Your task to perform on an android device: Open calendar and show me the third week of next month Image 0: 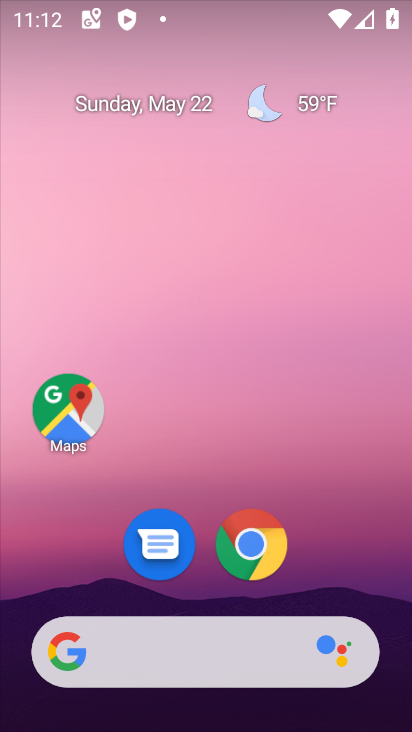
Step 0: drag from (394, 538) to (329, 124)
Your task to perform on an android device: Open calendar and show me the third week of next month Image 1: 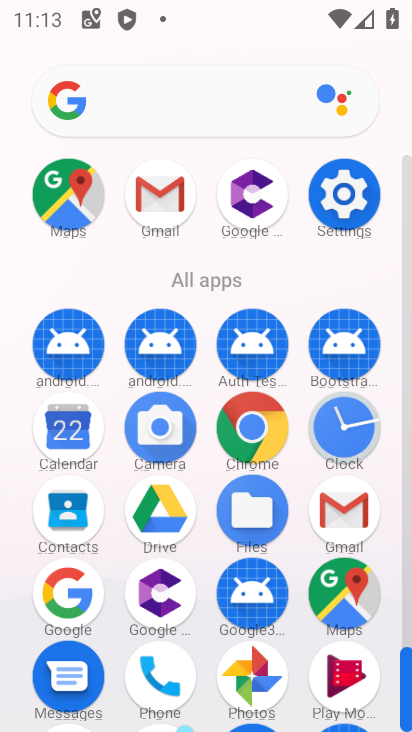
Step 1: click (85, 420)
Your task to perform on an android device: Open calendar and show me the third week of next month Image 2: 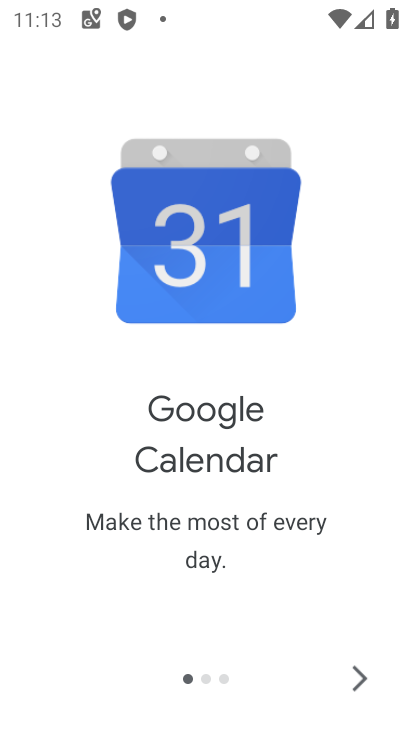
Step 2: click (351, 683)
Your task to perform on an android device: Open calendar and show me the third week of next month Image 3: 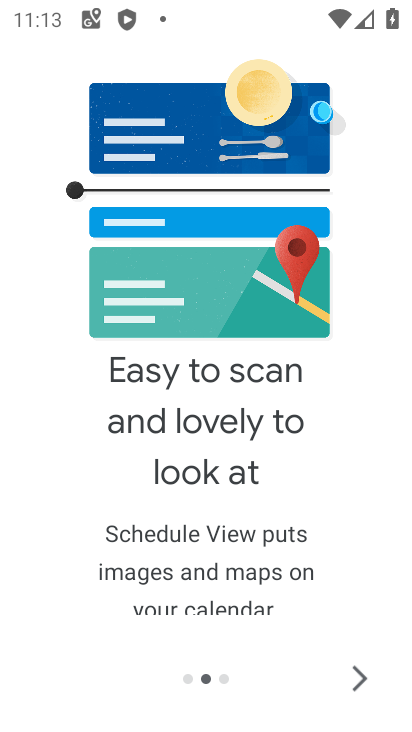
Step 3: click (351, 683)
Your task to perform on an android device: Open calendar and show me the third week of next month Image 4: 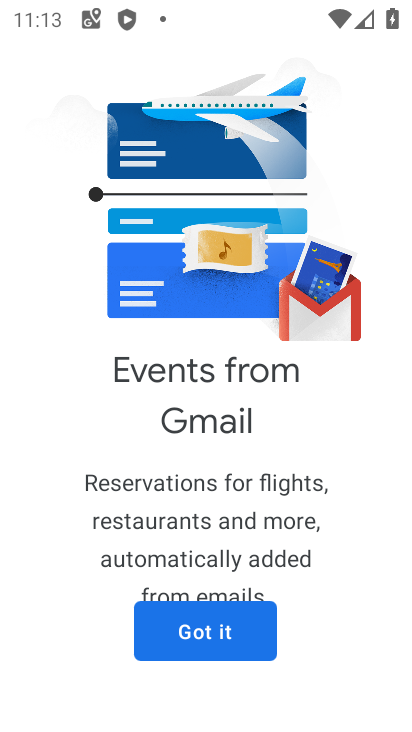
Step 4: click (238, 637)
Your task to perform on an android device: Open calendar and show me the third week of next month Image 5: 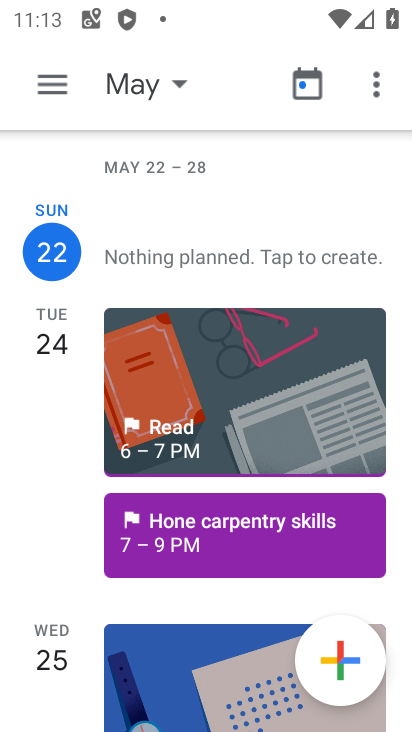
Step 5: click (161, 80)
Your task to perform on an android device: Open calendar and show me the third week of next month Image 6: 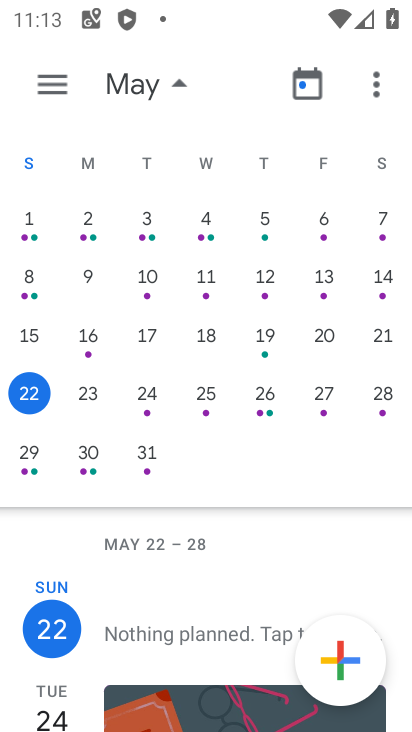
Step 6: drag from (316, 275) to (4, 343)
Your task to perform on an android device: Open calendar and show me the third week of next month Image 7: 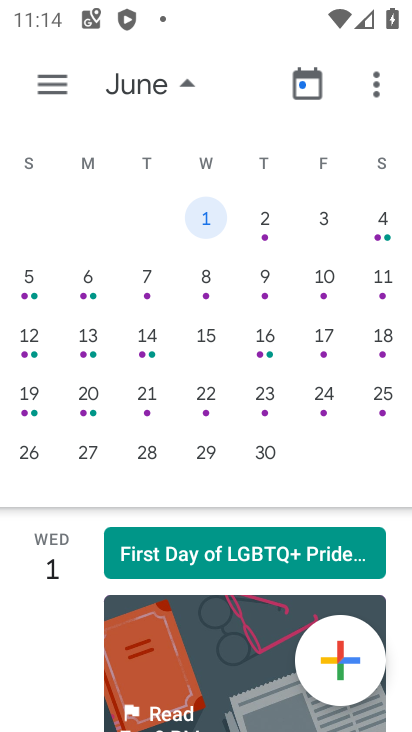
Step 7: click (144, 400)
Your task to perform on an android device: Open calendar and show me the third week of next month Image 8: 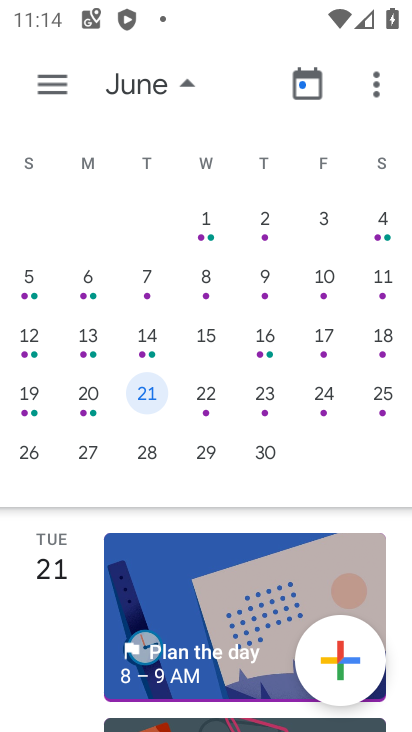
Step 8: task complete